Your task to perform on an android device: Open Wikipedia Image 0: 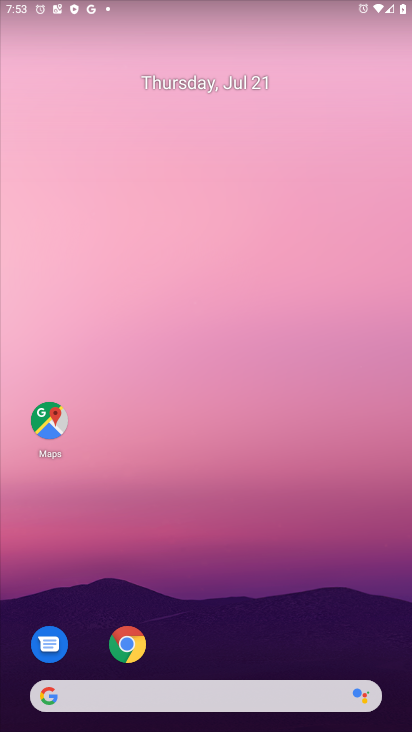
Step 0: click (221, 699)
Your task to perform on an android device: Open Wikipedia Image 1: 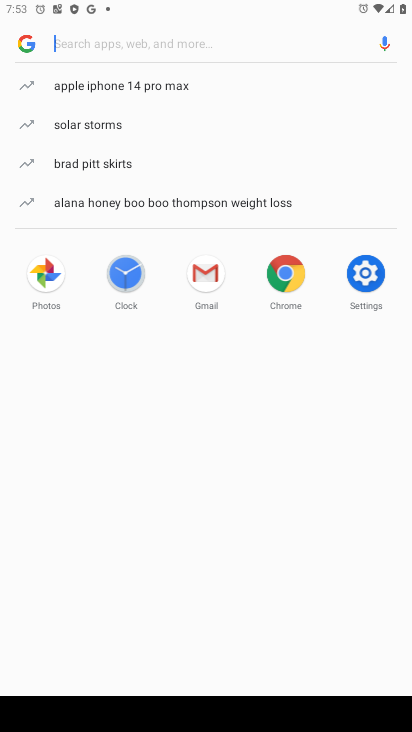
Step 1: type "Wikipedia"
Your task to perform on an android device: Open Wikipedia Image 2: 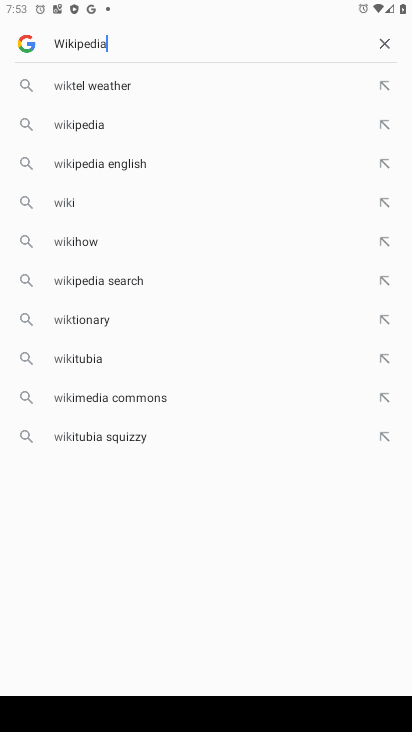
Step 2: press enter
Your task to perform on an android device: Open Wikipedia Image 3: 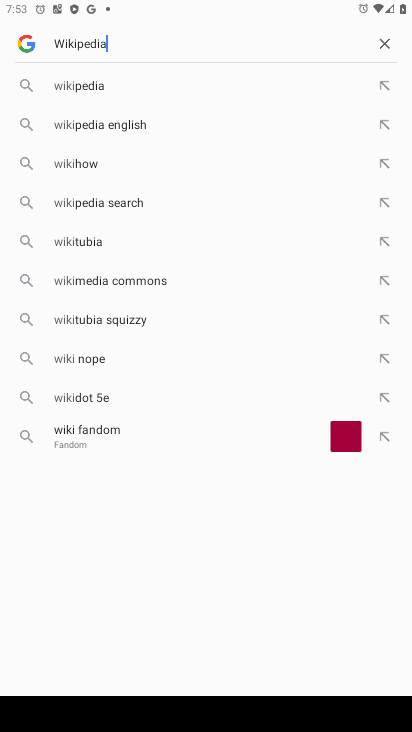
Step 3: type ""
Your task to perform on an android device: Open Wikipedia Image 4: 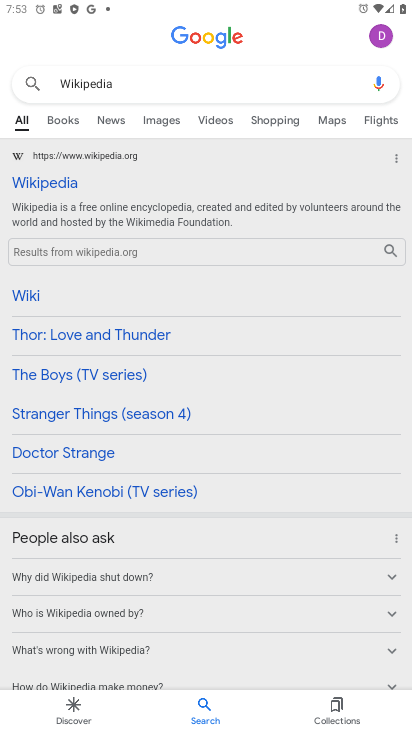
Step 4: click (49, 185)
Your task to perform on an android device: Open Wikipedia Image 5: 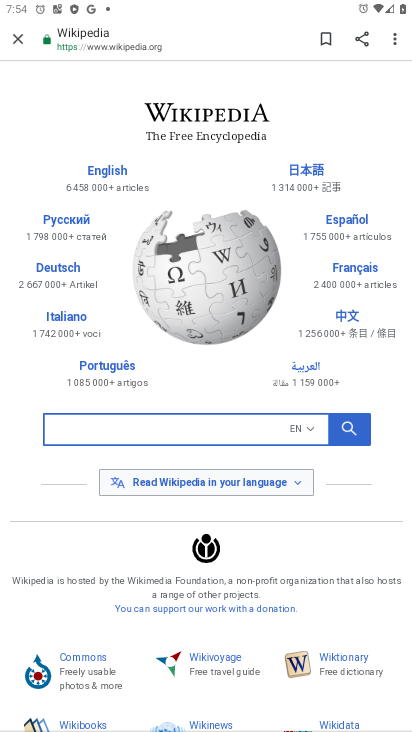
Step 5: task complete